Your task to perform on an android device: toggle sleep mode Image 0: 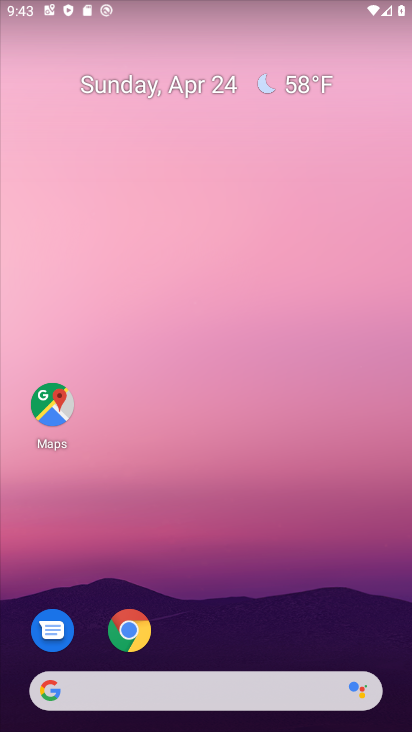
Step 0: click (312, 34)
Your task to perform on an android device: toggle sleep mode Image 1: 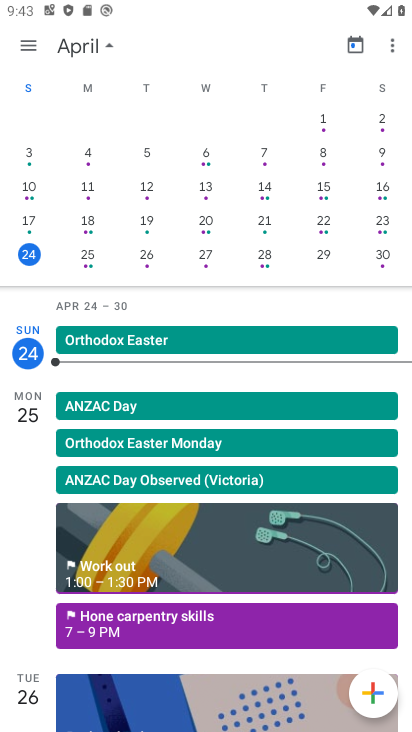
Step 1: press home button
Your task to perform on an android device: toggle sleep mode Image 2: 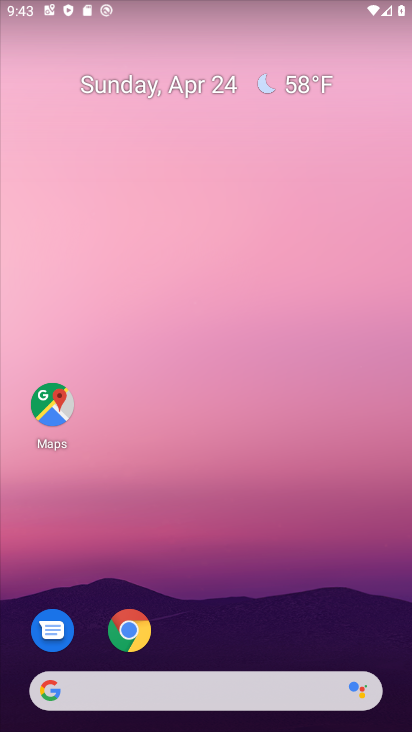
Step 2: drag from (322, 489) to (391, 7)
Your task to perform on an android device: toggle sleep mode Image 3: 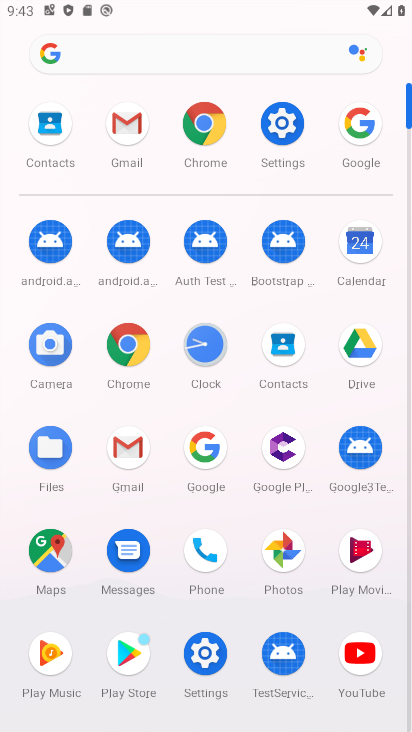
Step 3: click (287, 133)
Your task to perform on an android device: toggle sleep mode Image 4: 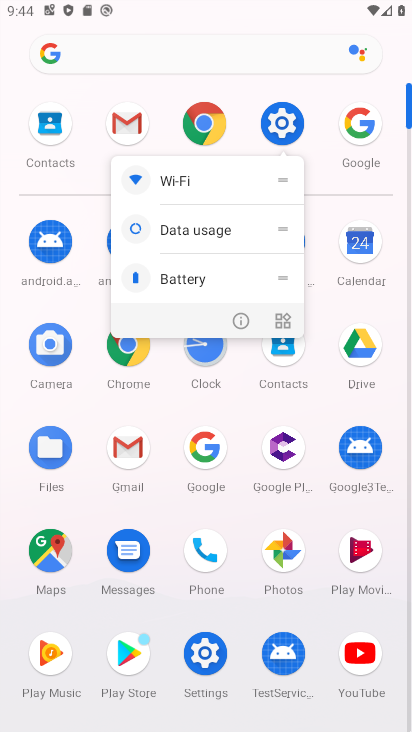
Step 4: click (287, 133)
Your task to perform on an android device: toggle sleep mode Image 5: 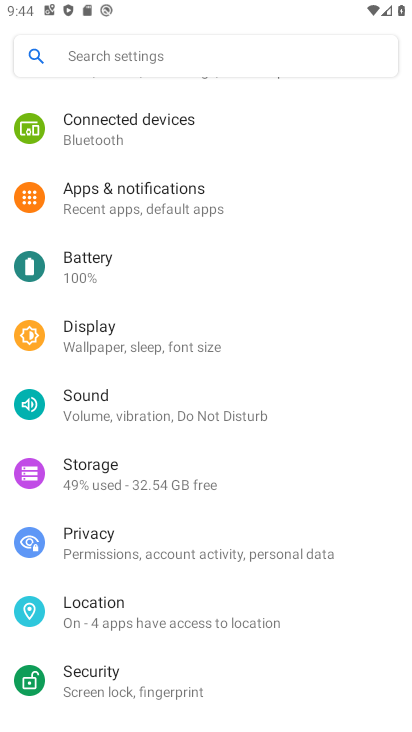
Step 5: click (187, 338)
Your task to perform on an android device: toggle sleep mode Image 6: 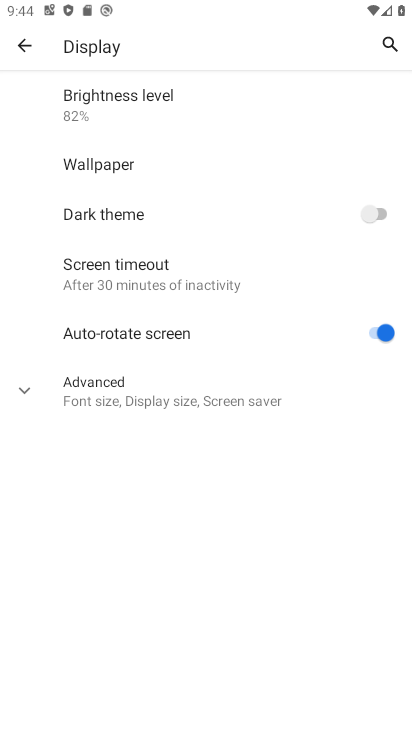
Step 6: click (159, 408)
Your task to perform on an android device: toggle sleep mode Image 7: 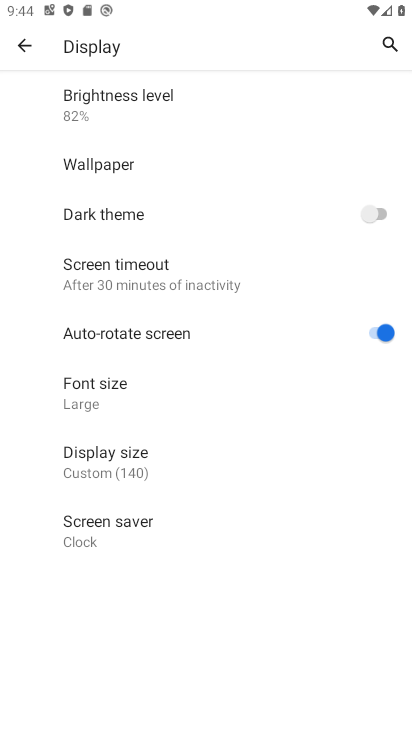
Step 7: task complete